Your task to perform on an android device: toggle improve location accuracy Image 0: 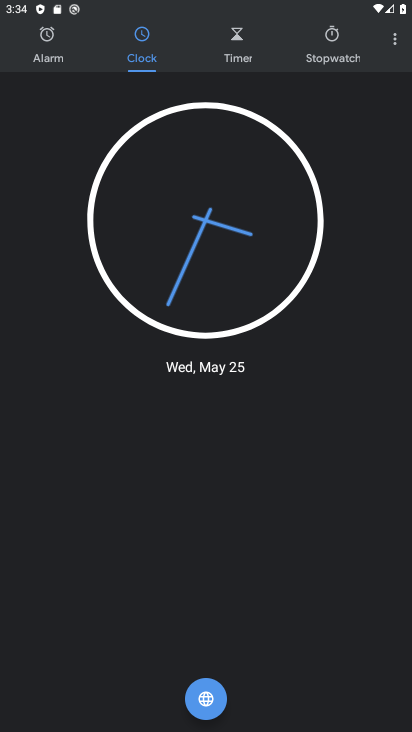
Step 0: press home button
Your task to perform on an android device: toggle improve location accuracy Image 1: 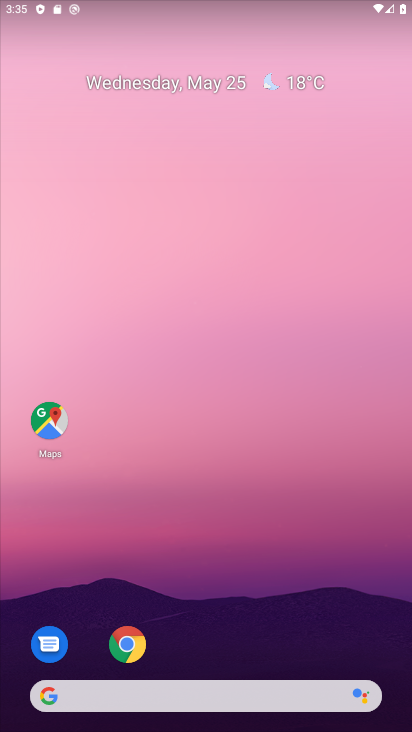
Step 1: drag from (269, 610) to (243, 149)
Your task to perform on an android device: toggle improve location accuracy Image 2: 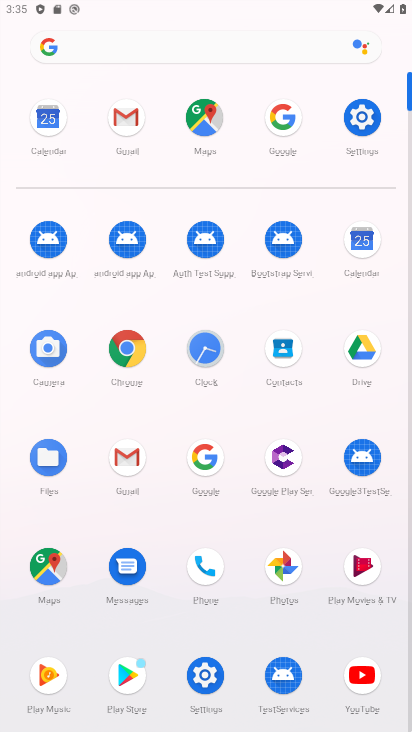
Step 2: click (361, 116)
Your task to perform on an android device: toggle improve location accuracy Image 3: 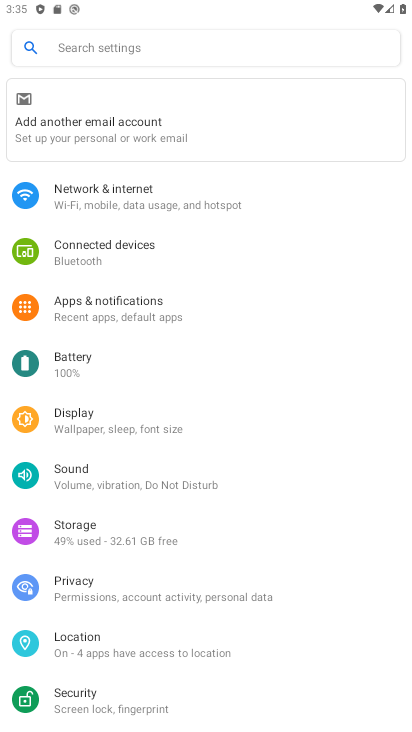
Step 3: click (162, 654)
Your task to perform on an android device: toggle improve location accuracy Image 4: 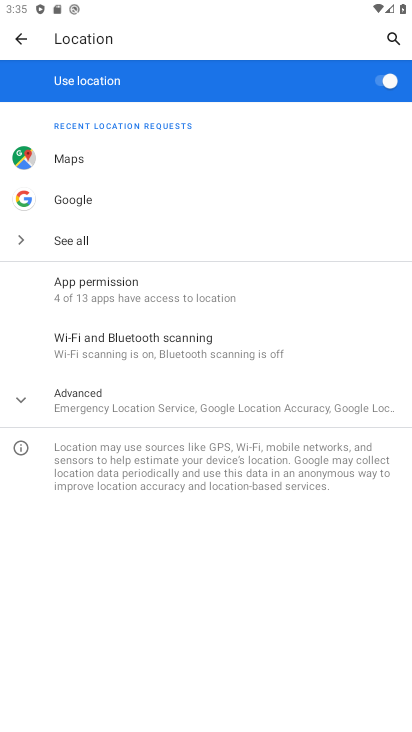
Step 4: click (119, 406)
Your task to perform on an android device: toggle improve location accuracy Image 5: 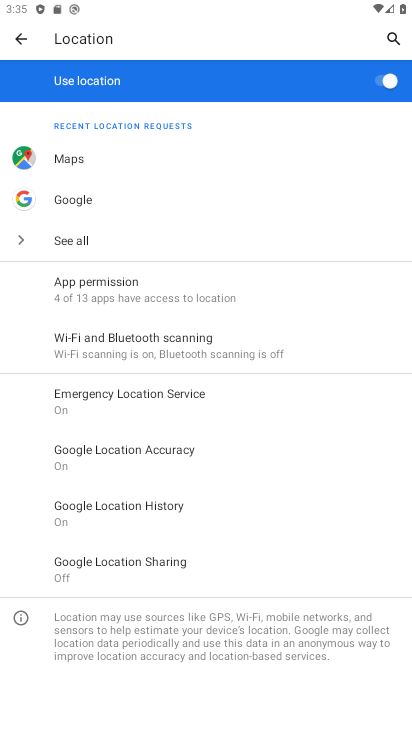
Step 5: click (95, 454)
Your task to perform on an android device: toggle improve location accuracy Image 6: 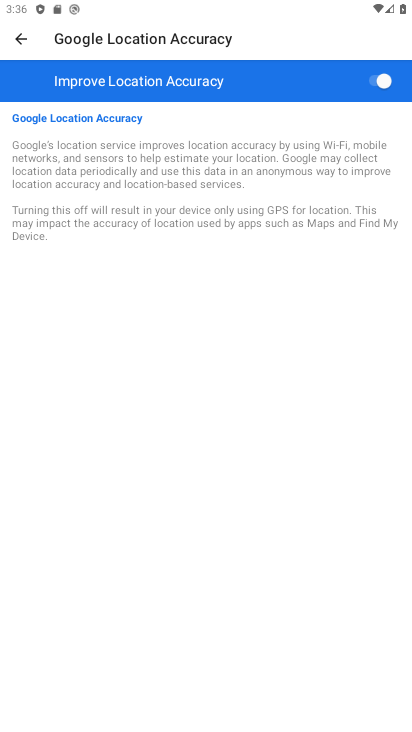
Step 6: click (379, 76)
Your task to perform on an android device: toggle improve location accuracy Image 7: 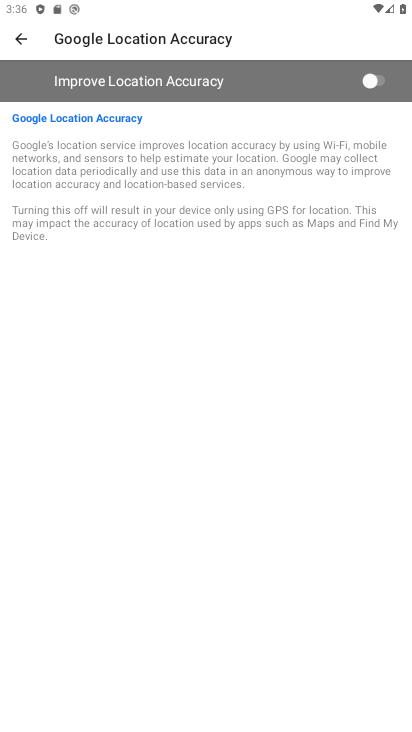
Step 7: task complete